Your task to perform on an android device: Open the Play Movies app and select the watchlist tab. Image 0: 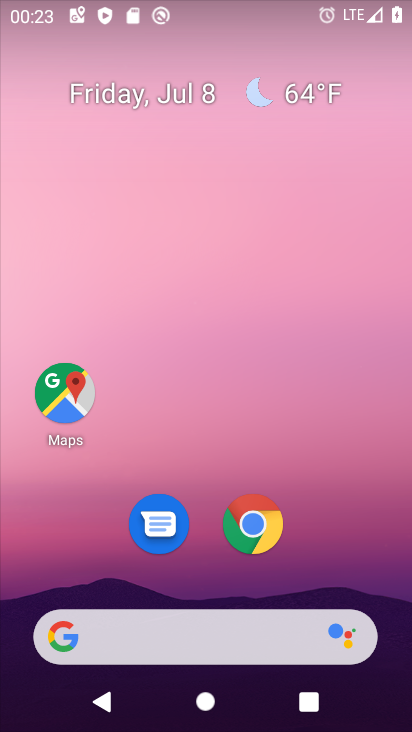
Step 0: drag from (319, 459) to (306, 9)
Your task to perform on an android device: Open the Play Movies app and select the watchlist tab. Image 1: 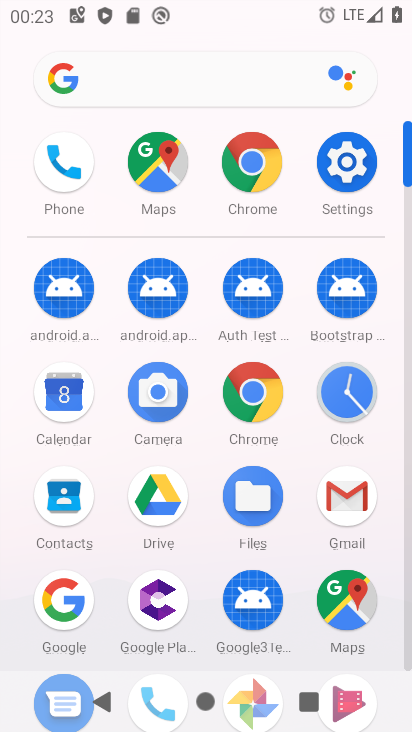
Step 1: drag from (290, 534) to (288, 277)
Your task to perform on an android device: Open the Play Movies app and select the watchlist tab. Image 2: 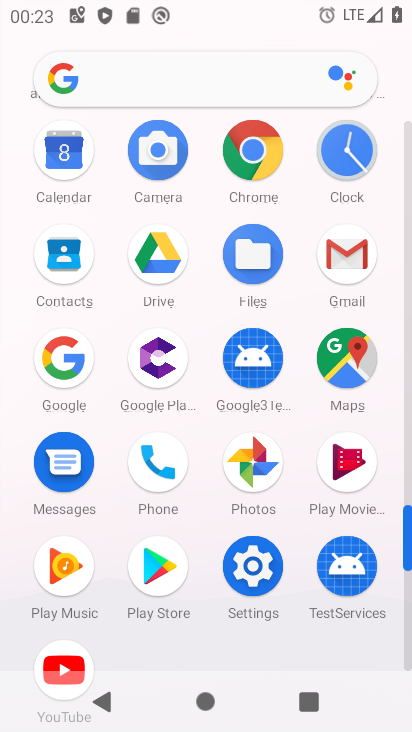
Step 2: click (351, 467)
Your task to perform on an android device: Open the Play Movies app and select the watchlist tab. Image 3: 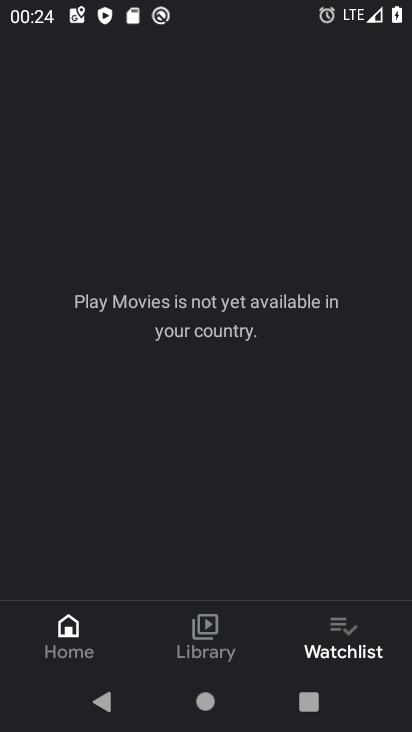
Step 3: click (357, 639)
Your task to perform on an android device: Open the Play Movies app and select the watchlist tab. Image 4: 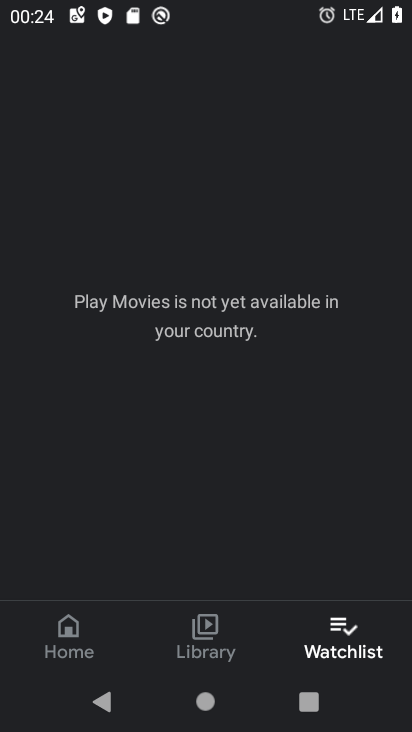
Step 4: task complete